Your task to perform on an android device: Look up the best rated desk lamps on IKEA Image 0: 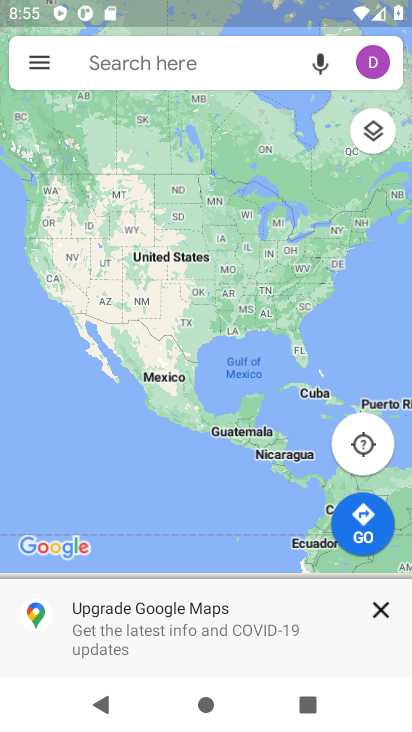
Step 0: press home button
Your task to perform on an android device: Look up the best rated desk lamps on IKEA Image 1: 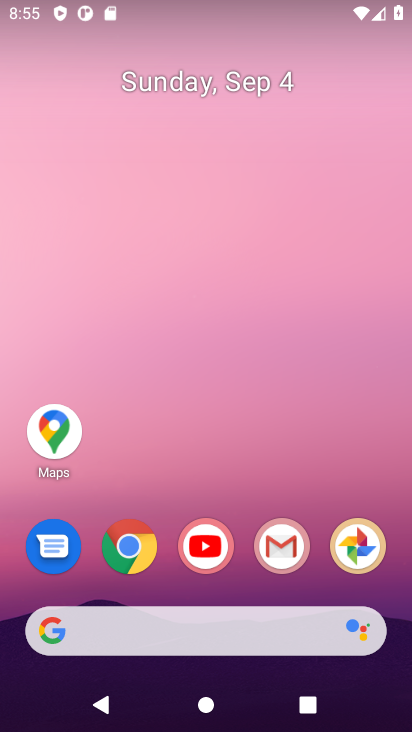
Step 1: click (132, 542)
Your task to perform on an android device: Look up the best rated desk lamps on IKEA Image 2: 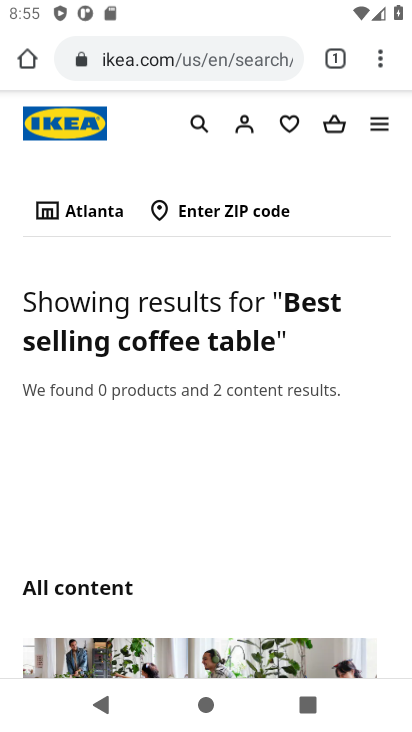
Step 2: click (201, 122)
Your task to perform on an android device: Look up the best rated desk lamps on IKEA Image 3: 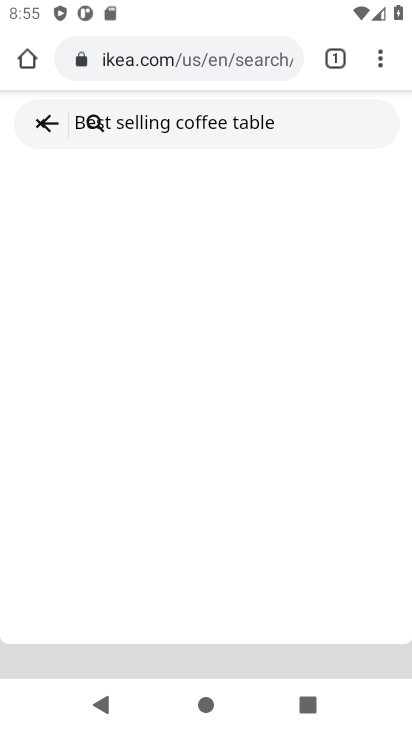
Step 3: click (314, 127)
Your task to perform on an android device: Look up the best rated desk lamps on IKEA Image 4: 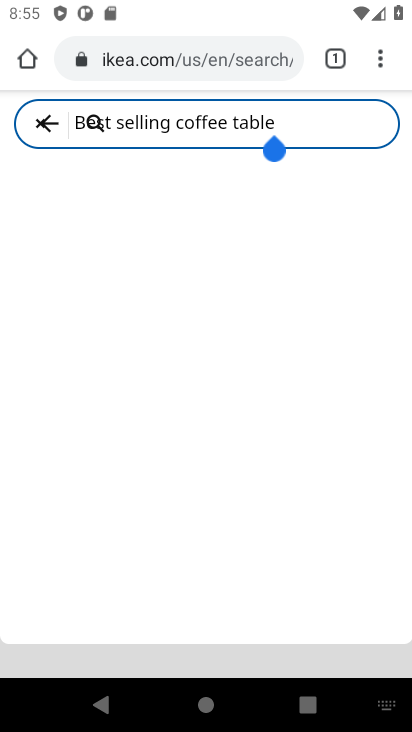
Step 4: click (92, 123)
Your task to perform on an android device: Look up the best rated desk lamps on IKEA Image 5: 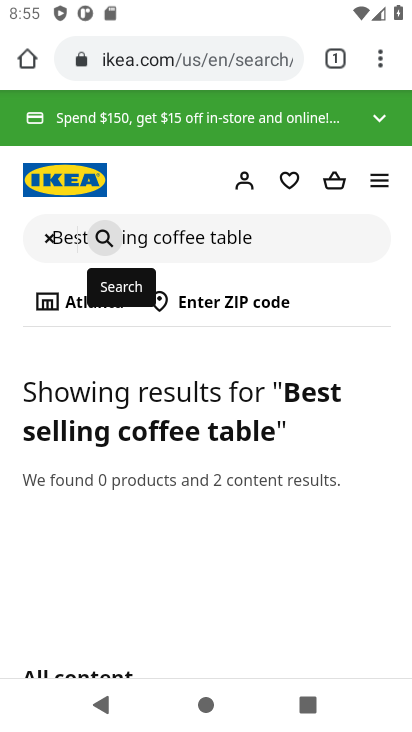
Step 5: click (108, 237)
Your task to perform on an android device: Look up the best rated desk lamps on IKEA Image 6: 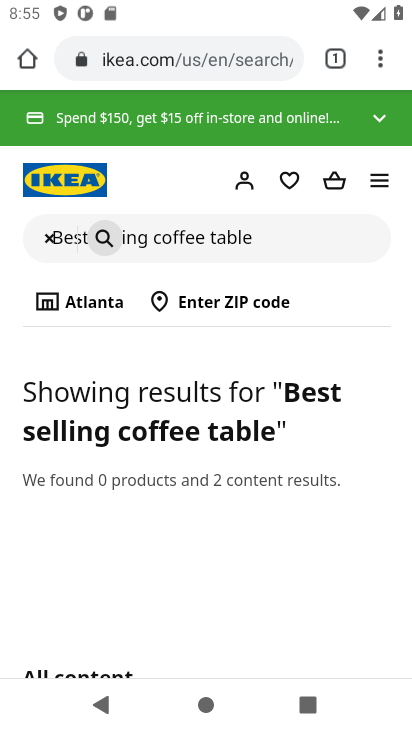
Step 6: click (51, 241)
Your task to perform on an android device: Look up the best rated desk lamps on IKEA Image 7: 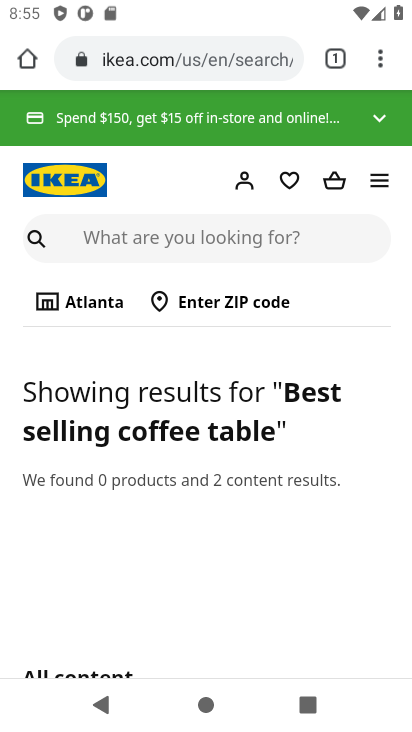
Step 7: click (126, 225)
Your task to perform on an android device: Look up the best rated desk lamps on IKEA Image 8: 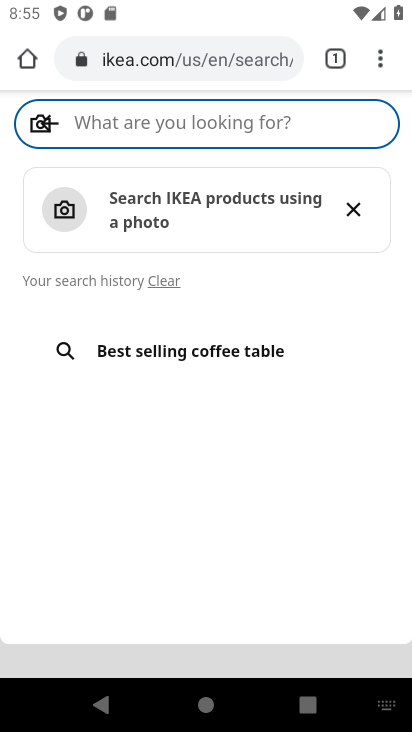
Step 8: type " best rated desk lamps "
Your task to perform on an android device: Look up the best rated desk lamps on IKEA Image 9: 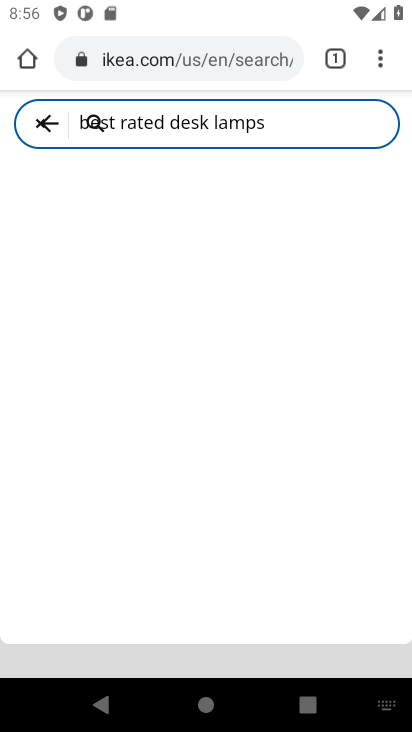
Step 9: click (97, 125)
Your task to perform on an android device: Look up the best rated desk lamps on IKEA Image 10: 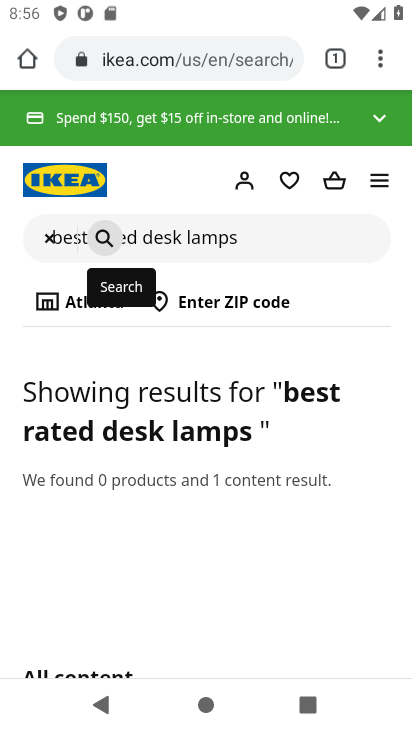
Step 10: task complete